Your task to perform on an android device: Open network settings Image 0: 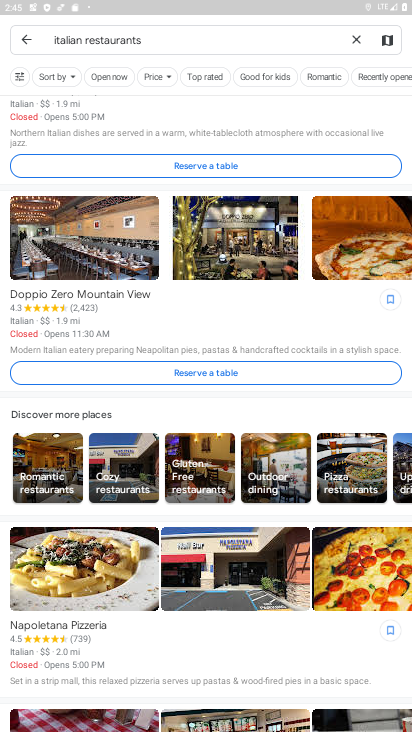
Step 0: press home button
Your task to perform on an android device: Open network settings Image 1: 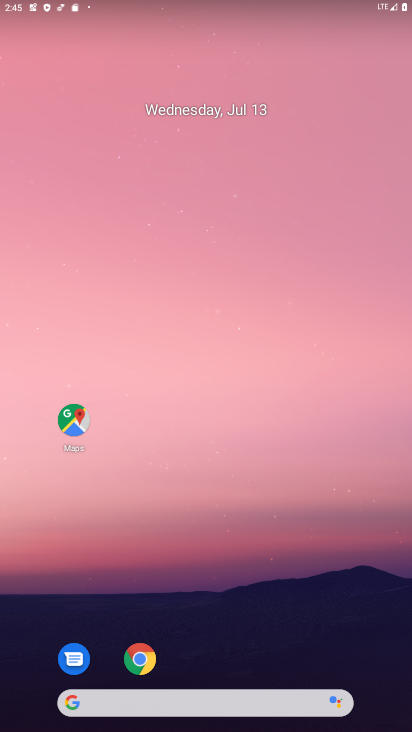
Step 1: drag from (388, 678) to (341, 201)
Your task to perform on an android device: Open network settings Image 2: 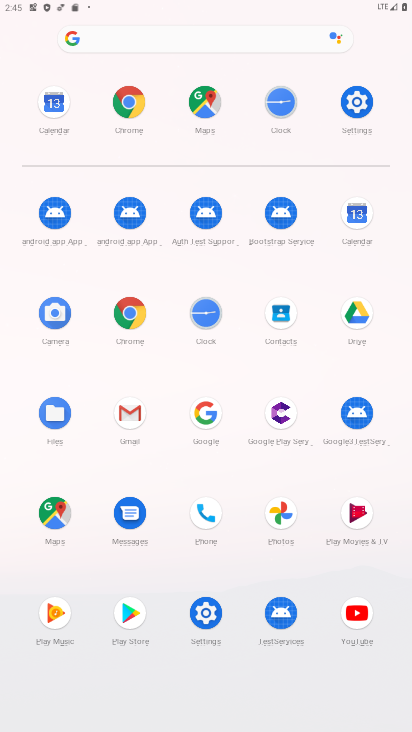
Step 2: click (205, 610)
Your task to perform on an android device: Open network settings Image 3: 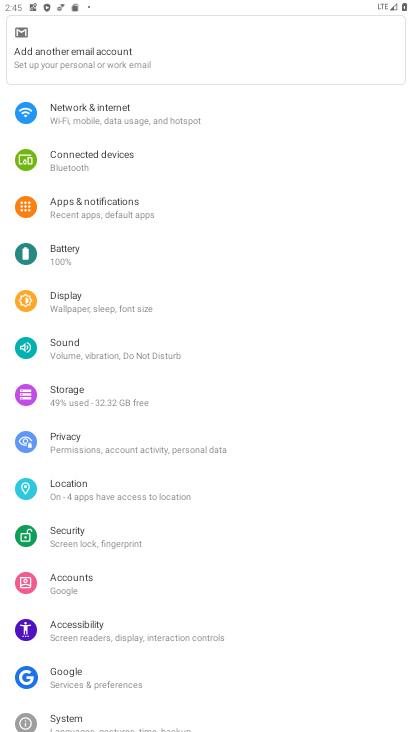
Step 3: click (82, 118)
Your task to perform on an android device: Open network settings Image 4: 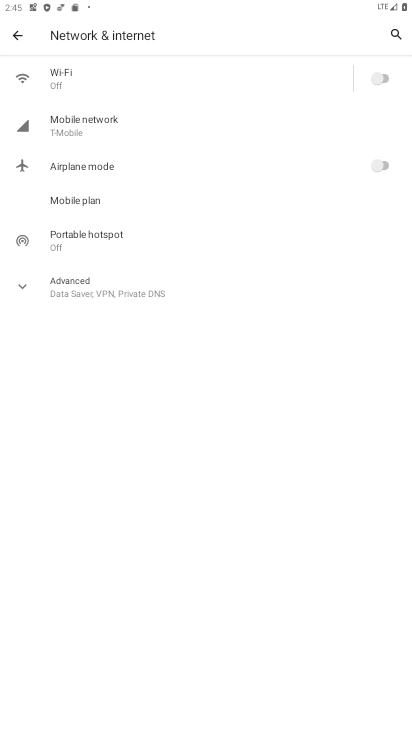
Step 4: click (67, 125)
Your task to perform on an android device: Open network settings Image 5: 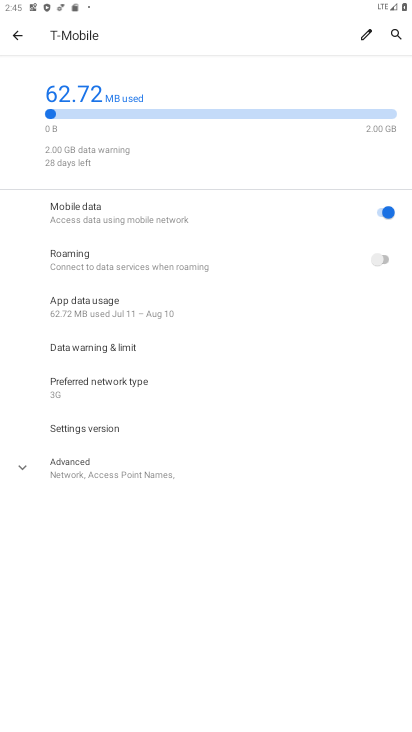
Step 5: click (25, 466)
Your task to perform on an android device: Open network settings Image 6: 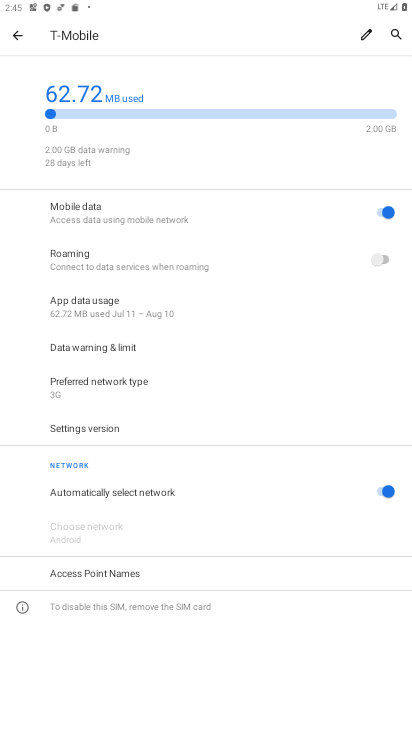
Step 6: task complete